Your task to perform on an android device: turn on the 12-hour format for clock Image 0: 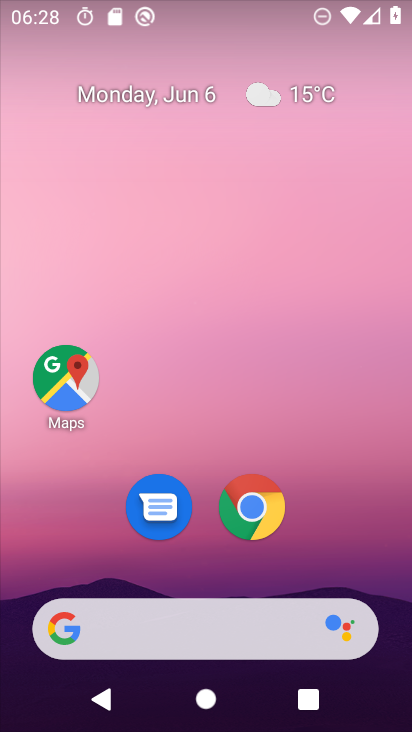
Step 0: drag from (188, 595) to (223, 111)
Your task to perform on an android device: turn on the 12-hour format for clock Image 1: 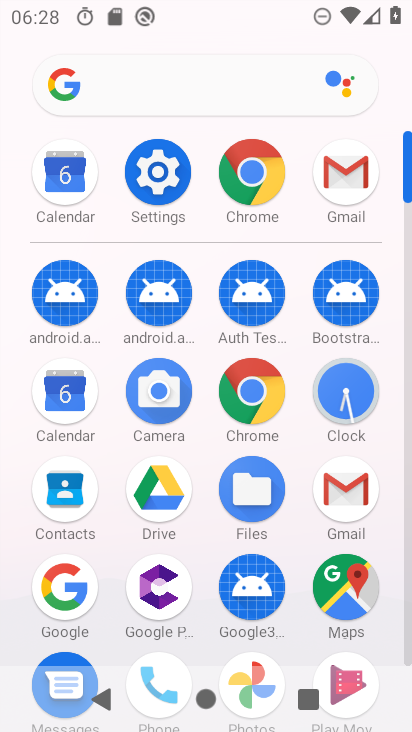
Step 1: click (335, 392)
Your task to perform on an android device: turn on the 12-hour format for clock Image 2: 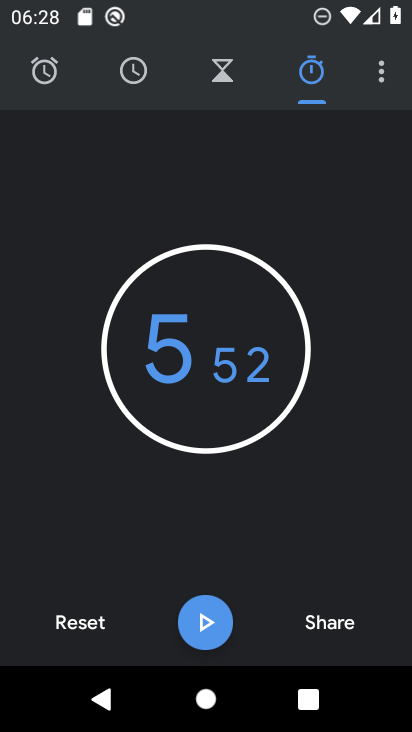
Step 2: click (381, 79)
Your task to perform on an android device: turn on the 12-hour format for clock Image 3: 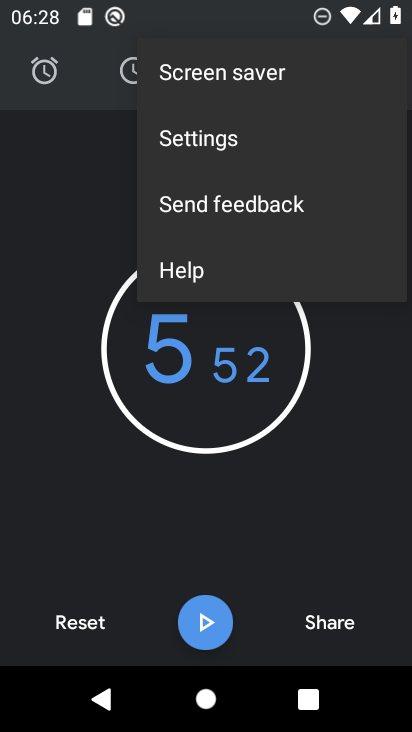
Step 3: click (250, 148)
Your task to perform on an android device: turn on the 12-hour format for clock Image 4: 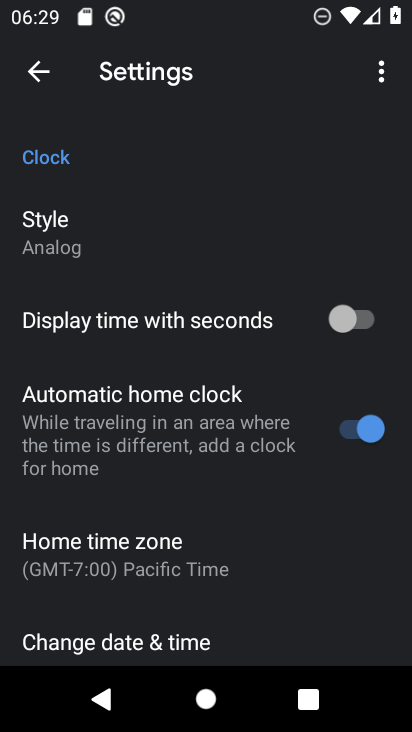
Step 4: click (146, 653)
Your task to perform on an android device: turn on the 12-hour format for clock Image 5: 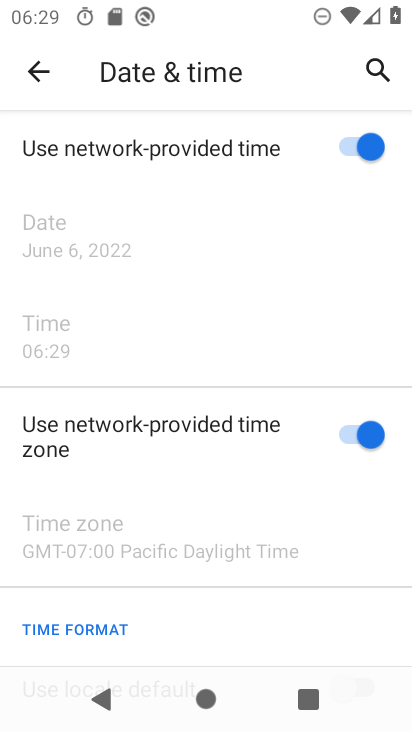
Step 5: drag from (248, 584) to (268, 137)
Your task to perform on an android device: turn on the 12-hour format for clock Image 6: 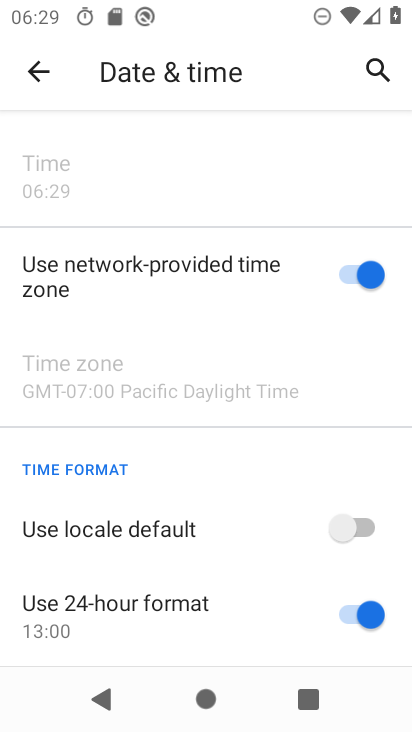
Step 6: click (344, 622)
Your task to perform on an android device: turn on the 12-hour format for clock Image 7: 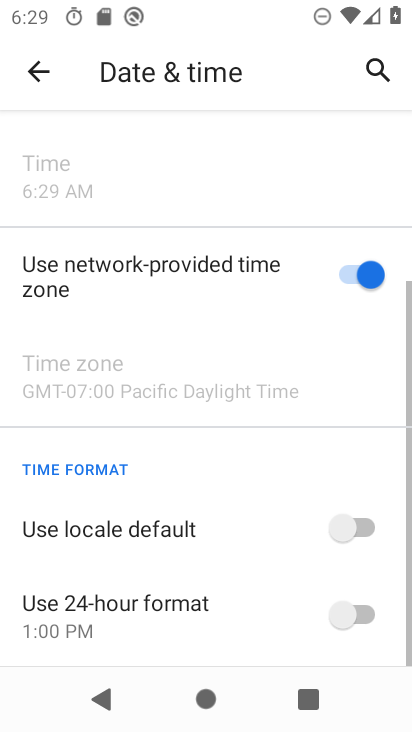
Step 7: click (374, 525)
Your task to perform on an android device: turn on the 12-hour format for clock Image 8: 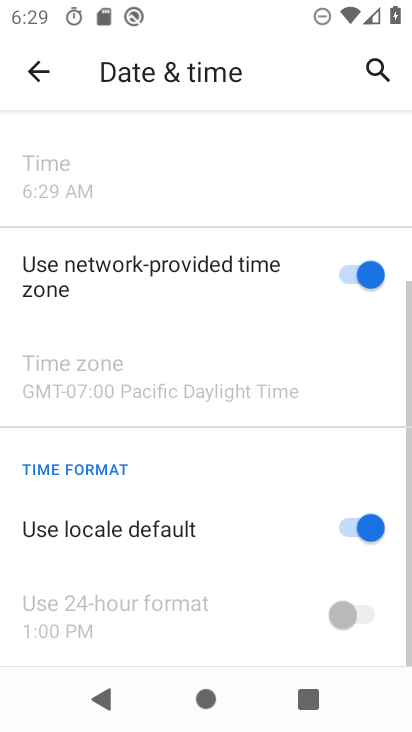
Step 8: task complete